Your task to perform on an android device: Search for the best websites on the internet Image 0: 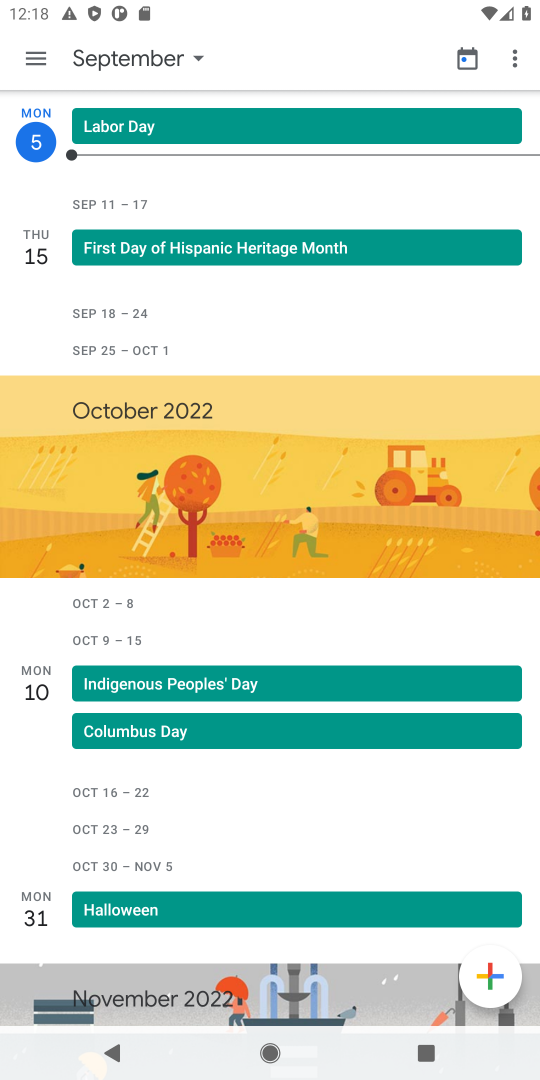
Step 0: press home button
Your task to perform on an android device: Search for the best websites on the internet Image 1: 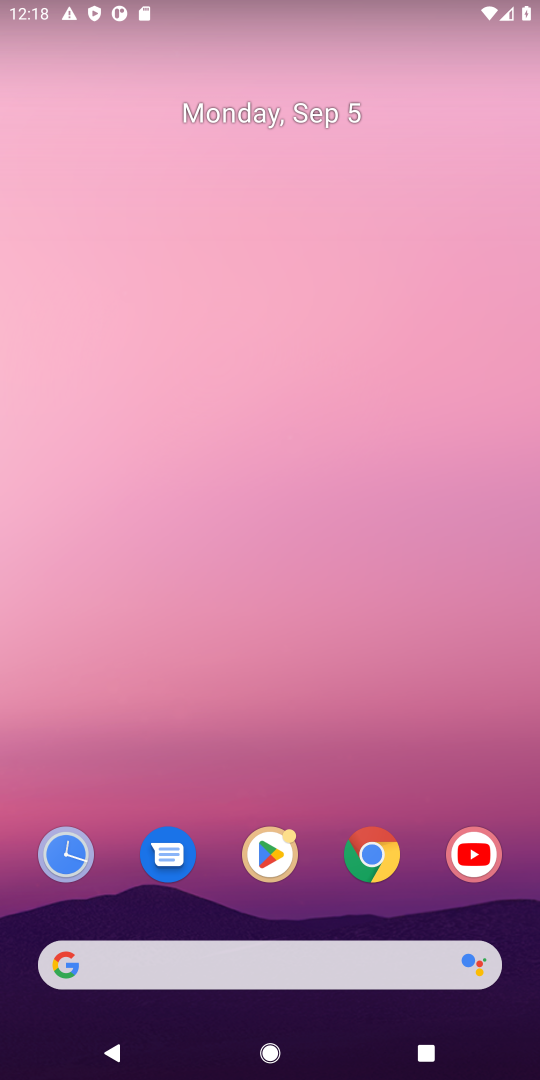
Step 1: click (258, 958)
Your task to perform on an android device: Search for the best websites on the internet Image 2: 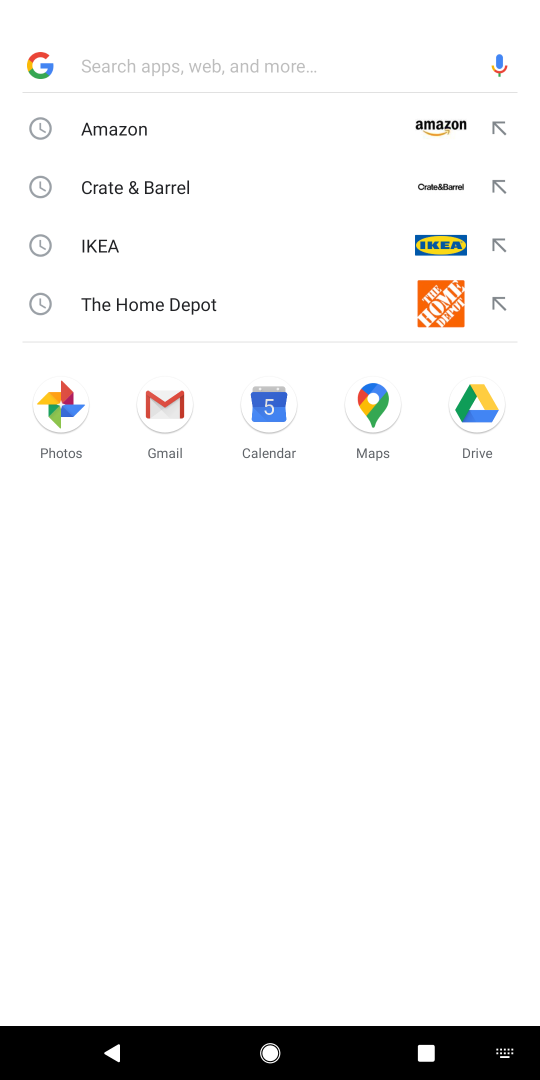
Step 2: type "best websites on the internet"
Your task to perform on an android device: Search for the best websites on the internet Image 3: 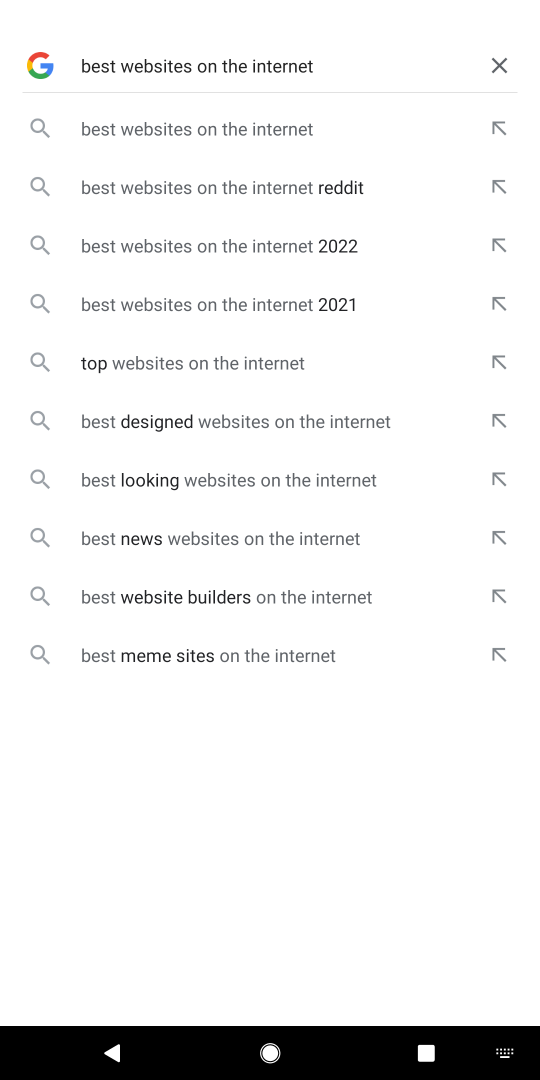
Step 3: press enter
Your task to perform on an android device: Search for the best websites on the internet Image 4: 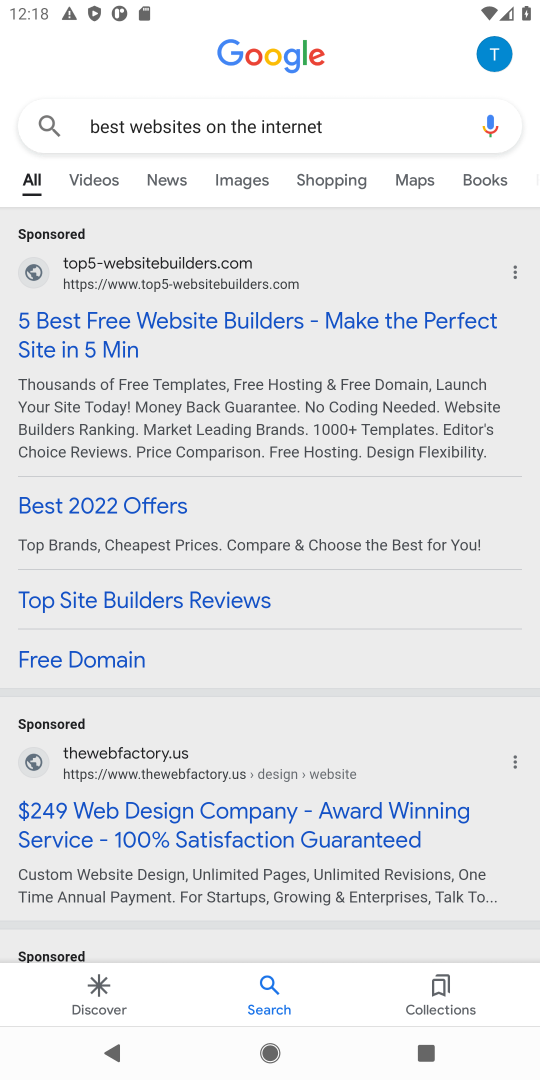
Step 4: task complete